Your task to perform on an android device: check battery use Image 0: 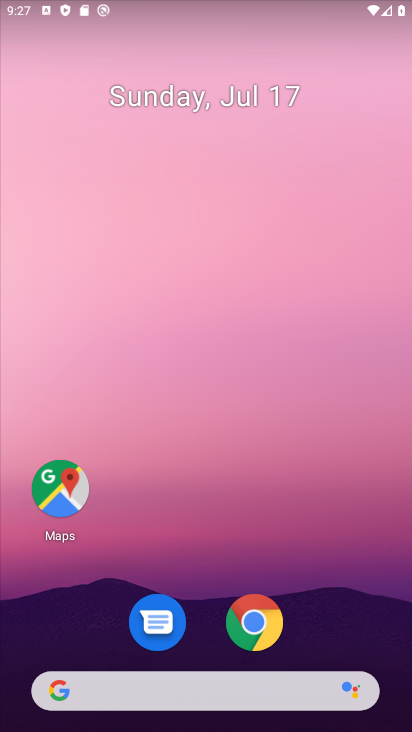
Step 0: click (351, 153)
Your task to perform on an android device: check battery use Image 1: 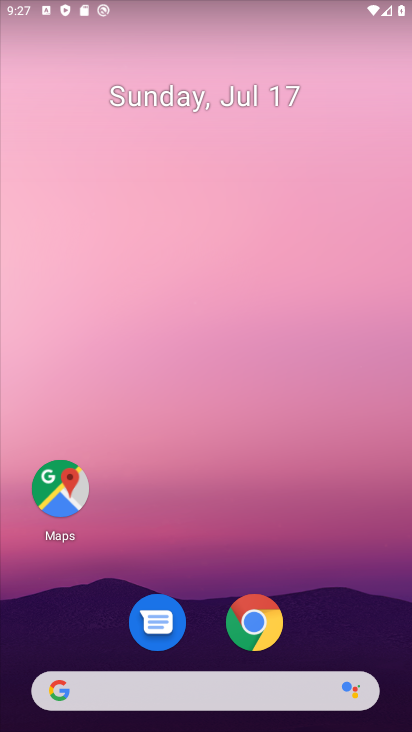
Step 1: drag from (219, 503) to (237, 103)
Your task to perform on an android device: check battery use Image 2: 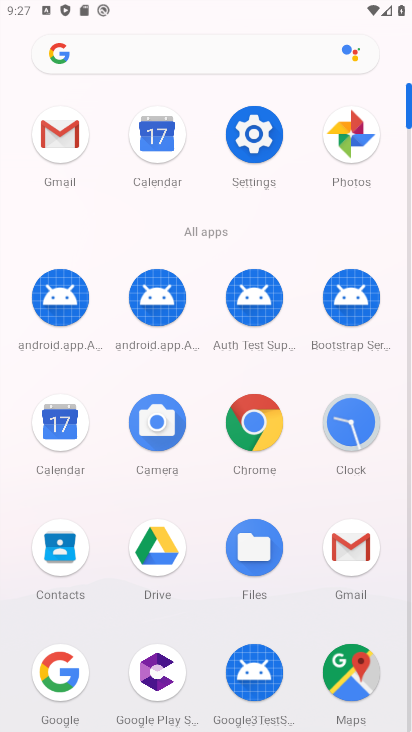
Step 2: click (254, 130)
Your task to perform on an android device: check battery use Image 3: 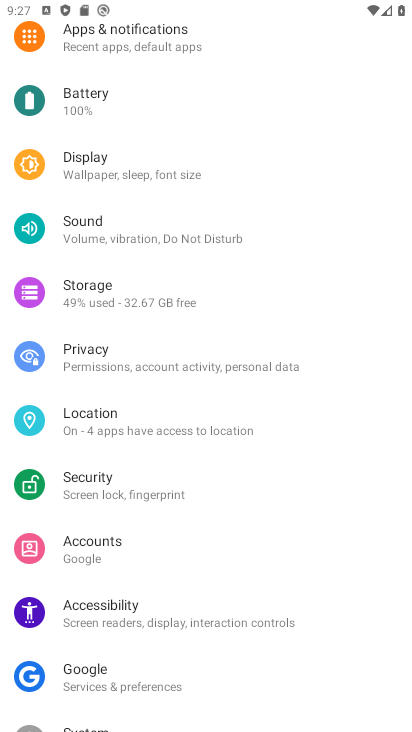
Step 3: click (142, 77)
Your task to perform on an android device: check battery use Image 4: 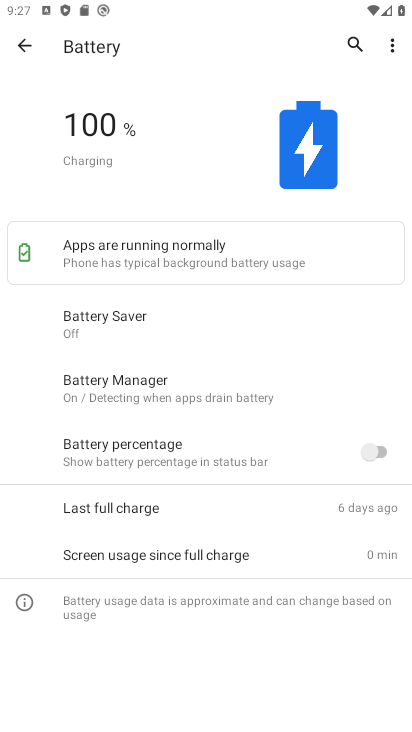
Step 4: click (394, 39)
Your task to perform on an android device: check battery use Image 5: 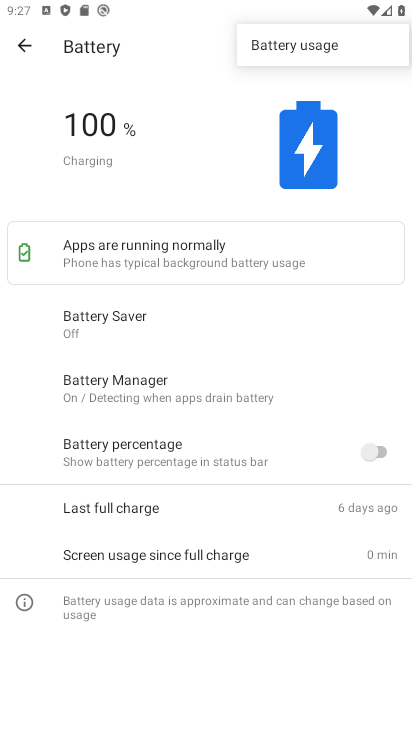
Step 5: click (366, 44)
Your task to perform on an android device: check battery use Image 6: 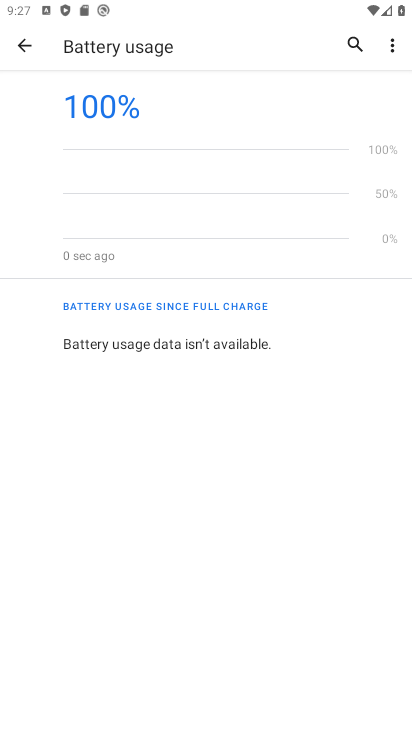
Step 6: task complete